Your task to perform on an android device: turn off javascript in the chrome app Image 0: 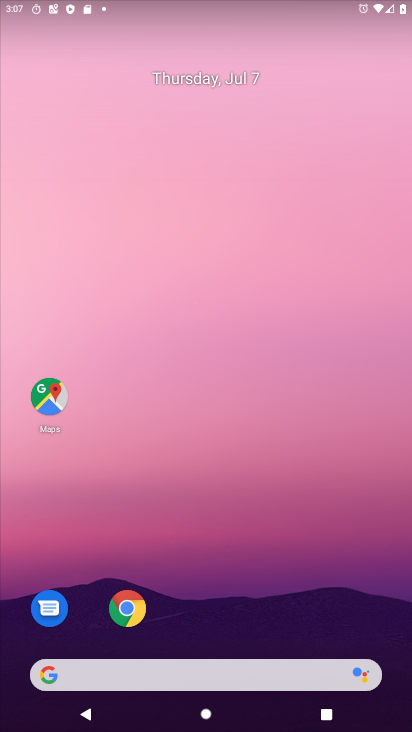
Step 0: click (123, 610)
Your task to perform on an android device: turn off javascript in the chrome app Image 1: 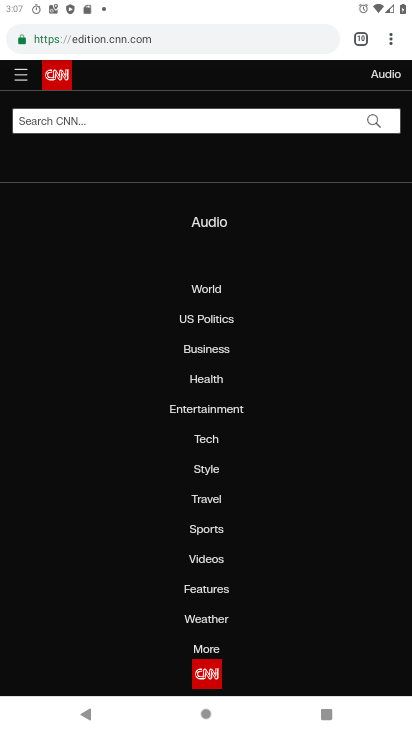
Step 1: click (391, 42)
Your task to perform on an android device: turn off javascript in the chrome app Image 2: 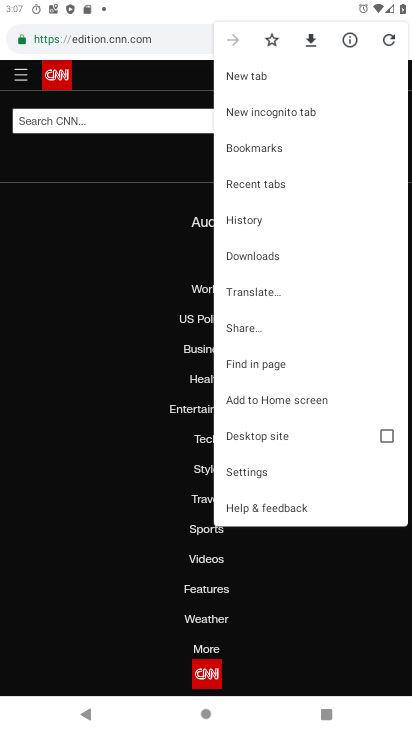
Step 2: click (245, 470)
Your task to perform on an android device: turn off javascript in the chrome app Image 3: 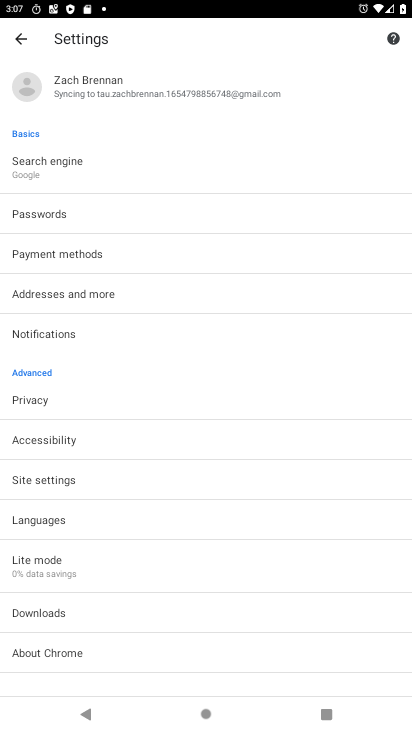
Step 3: click (47, 481)
Your task to perform on an android device: turn off javascript in the chrome app Image 4: 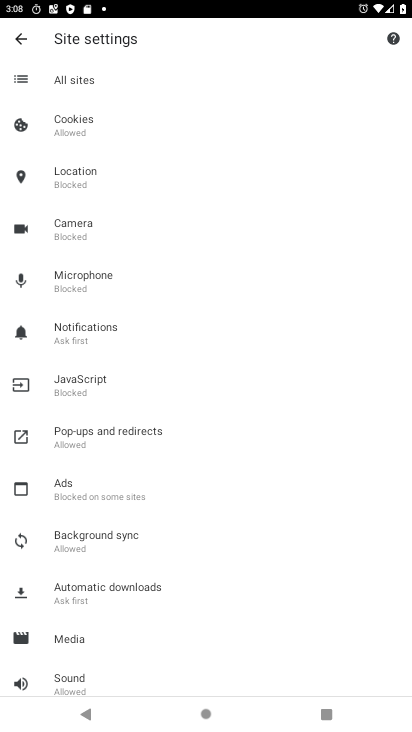
Step 4: click (71, 386)
Your task to perform on an android device: turn off javascript in the chrome app Image 5: 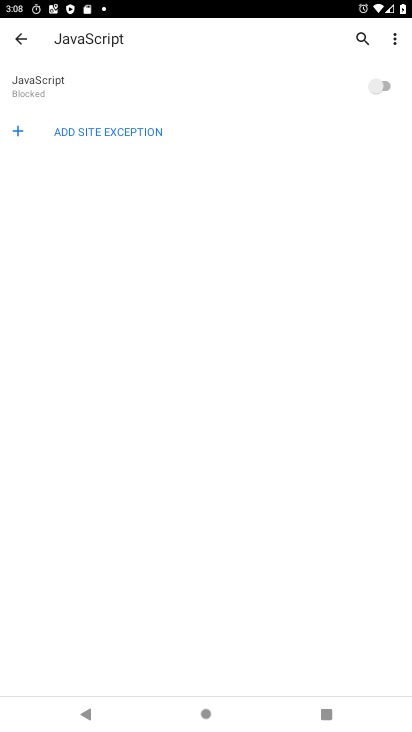
Step 5: task complete